Your task to perform on an android device: Go to Amazon Image 0: 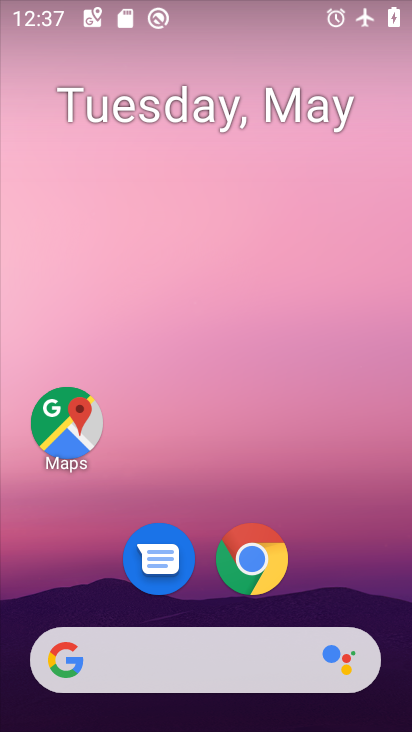
Step 0: click (275, 566)
Your task to perform on an android device: Go to Amazon Image 1: 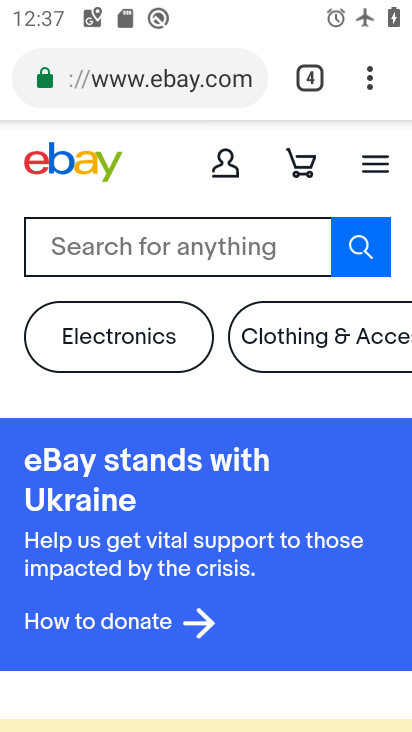
Step 1: click (302, 92)
Your task to perform on an android device: Go to Amazon Image 2: 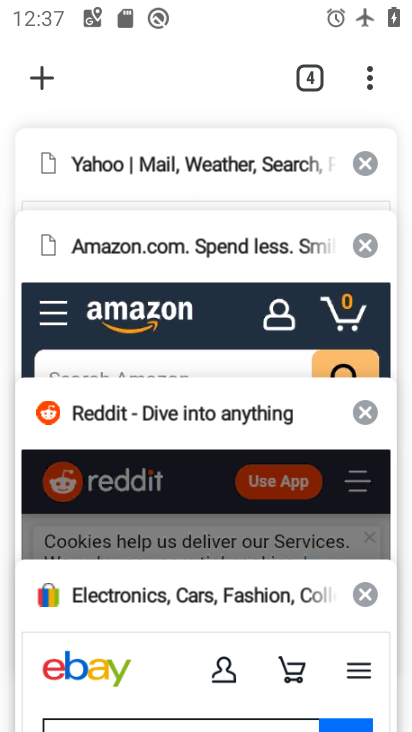
Step 2: click (257, 309)
Your task to perform on an android device: Go to Amazon Image 3: 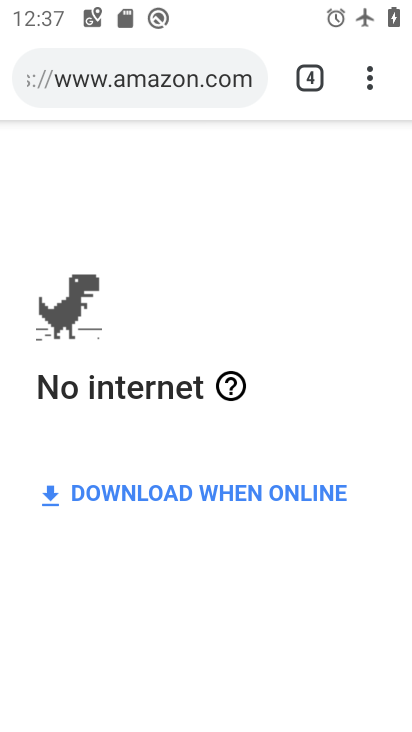
Step 3: task complete